Your task to perform on an android device: turn on improve location accuracy Image 0: 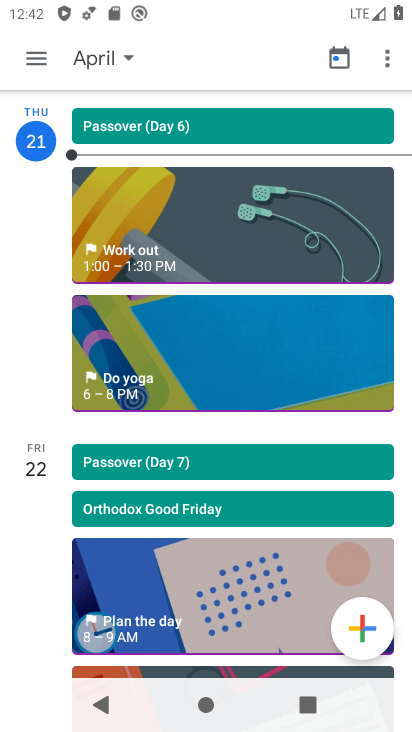
Step 0: press home button
Your task to perform on an android device: turn on improve location accuracy Image 1: 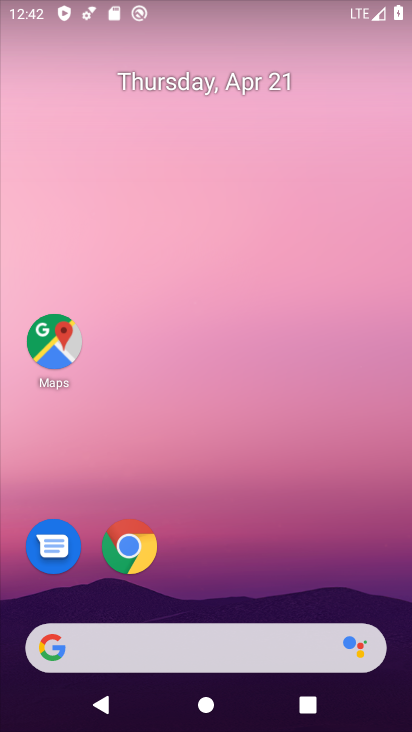
Step 1: drag from (234, 510) to (206, 117)
Your task to perform on an android device: turn on improve location accuracy Image 2: 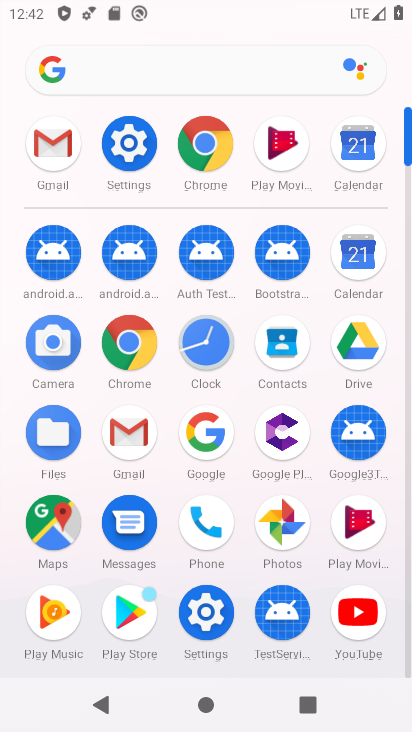
Step 2: click (119, 153)
Your task to perform on an android device: turn on improve location accuracy Image 3: 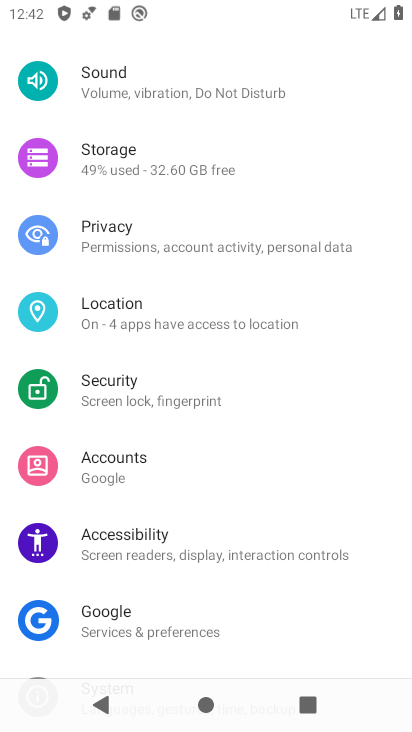
Step 3: drag from (233, 443) to (218, 602)
Your task to perform on an android device: turn on improve location accuracy Image 4: 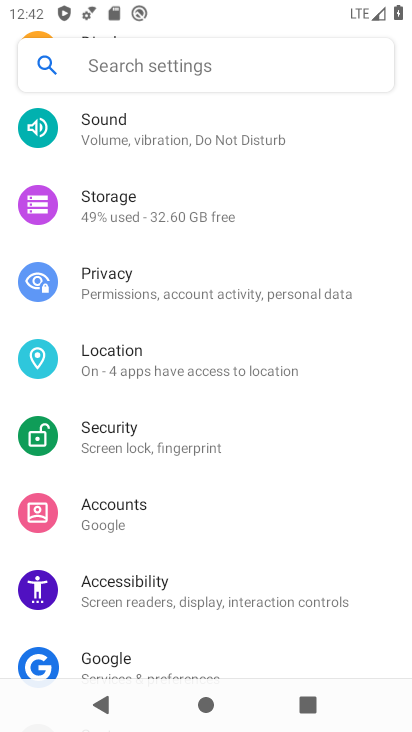
Step 4: click (155, 377)
Your task to perform on an android device: turn on improve location accuracy Image 5: 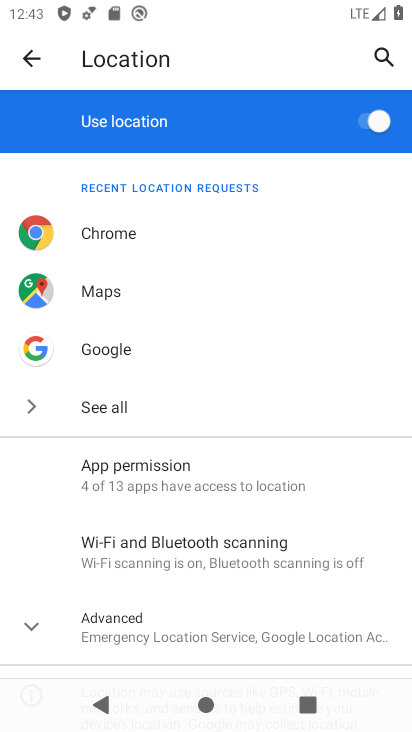
Step 5: drag from (166, 603) to (163, 331)
Your task to perform on an android device: turn on improve location accuracy Image 6: 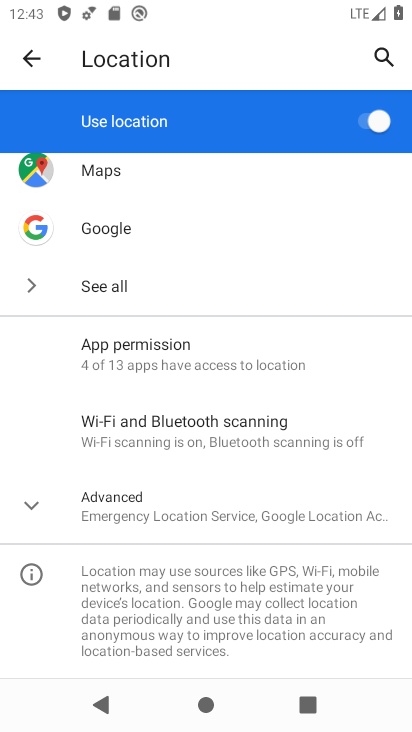
Step 6: click (31, 502)
Your task to perform on an android device: turn on improve location accuracy Image 7: 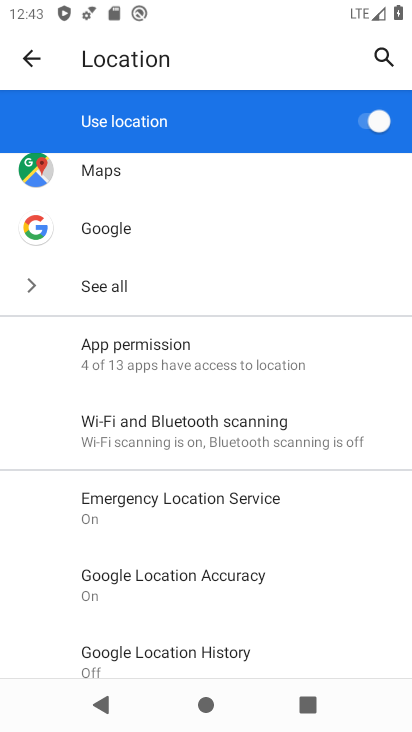
Step 7: click (193, 561)
Your task to perform on an android device: turn on improve location accuracy Image 8: 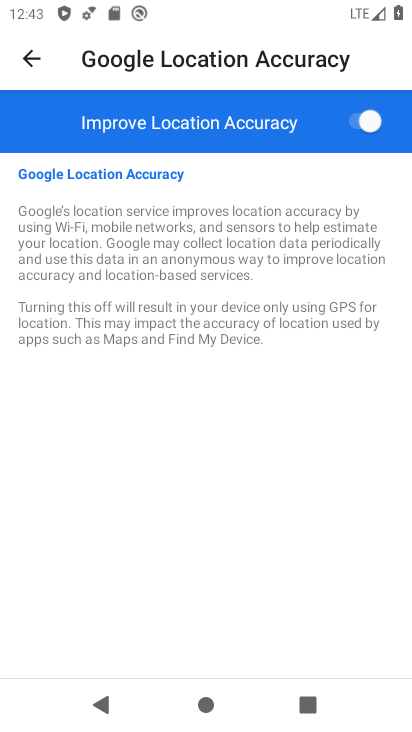
Step 8: task complete